Your task to perform on an android device: Open display settings Image 0: 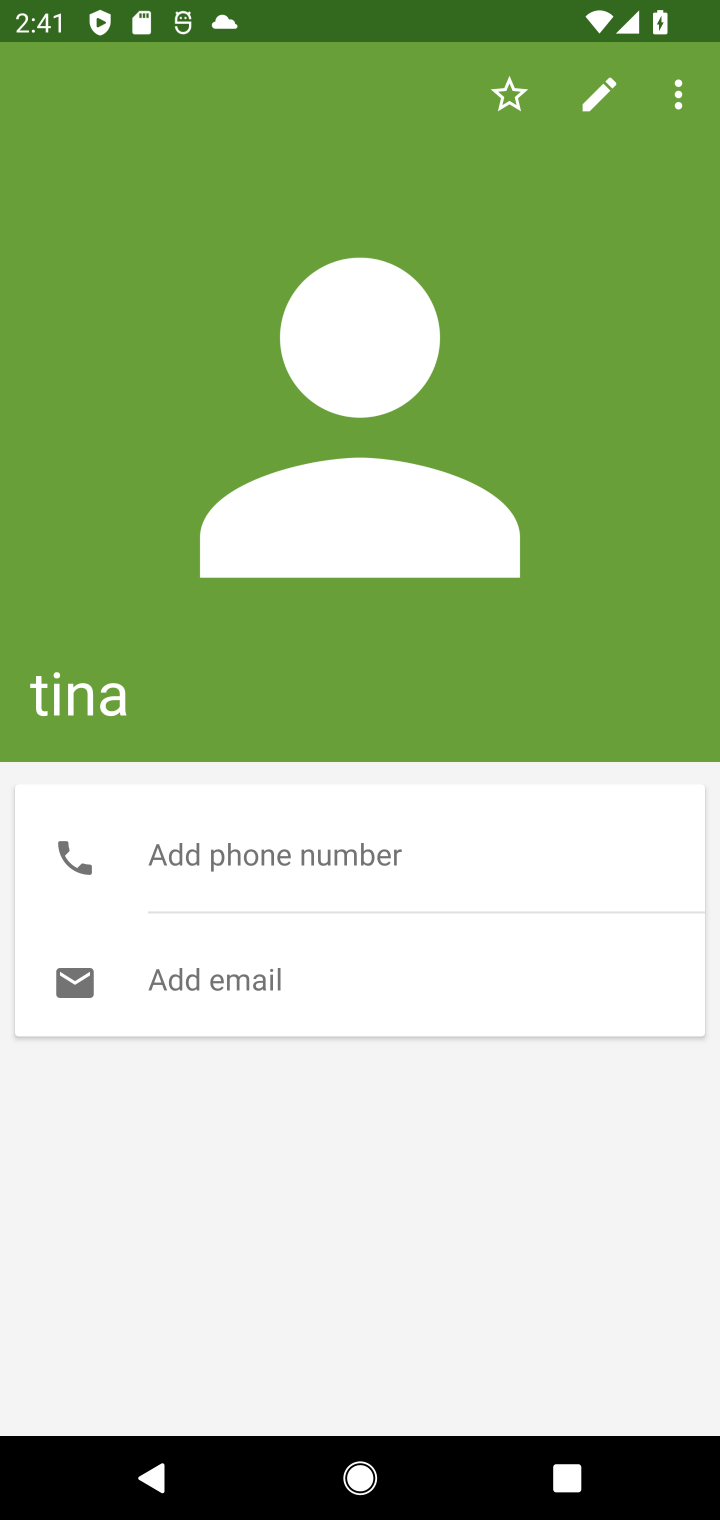
Step 0: press home button
Your task to perform on an android device: Open display settings Image 1: 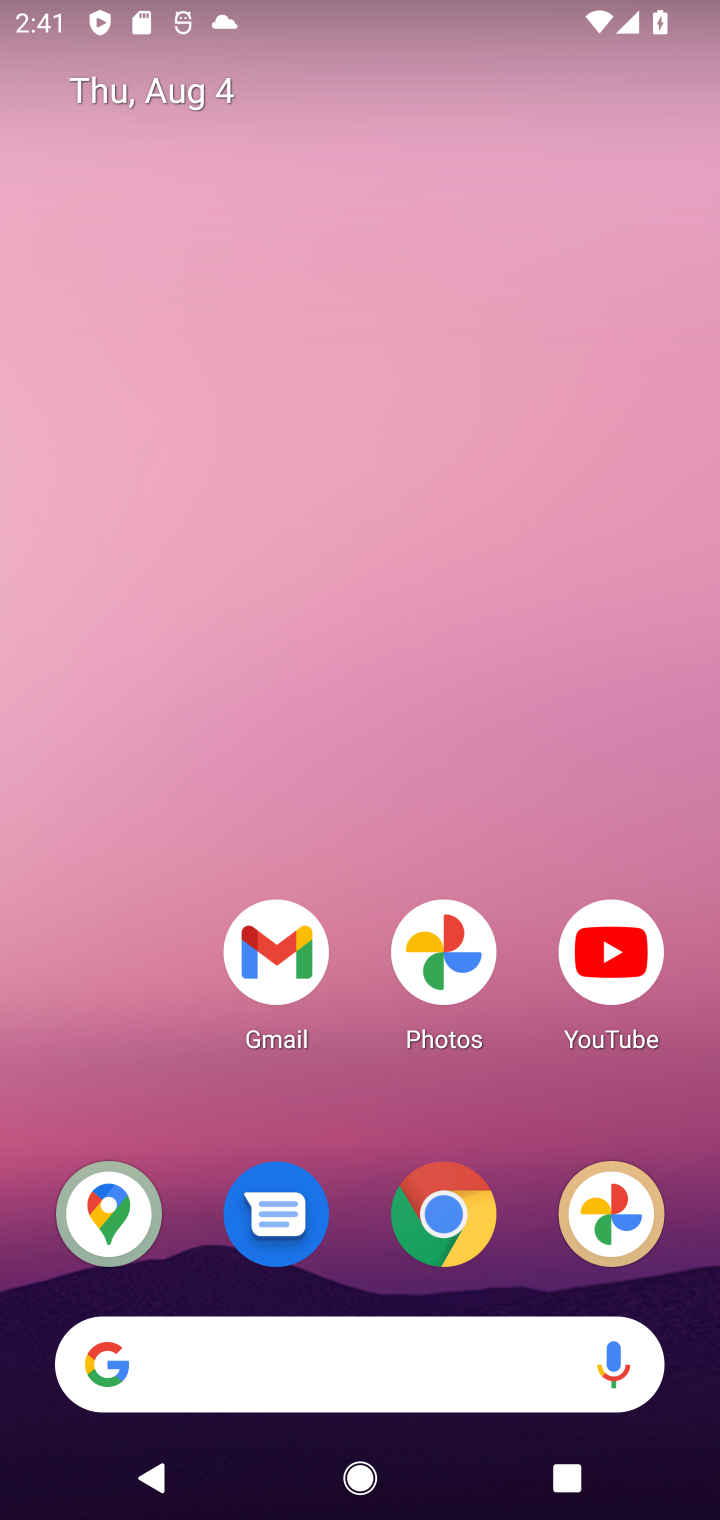
Step 1: drag from (117, 1065) to (66, 0)
Your task to perform on an android device: Open display settings Image 2: 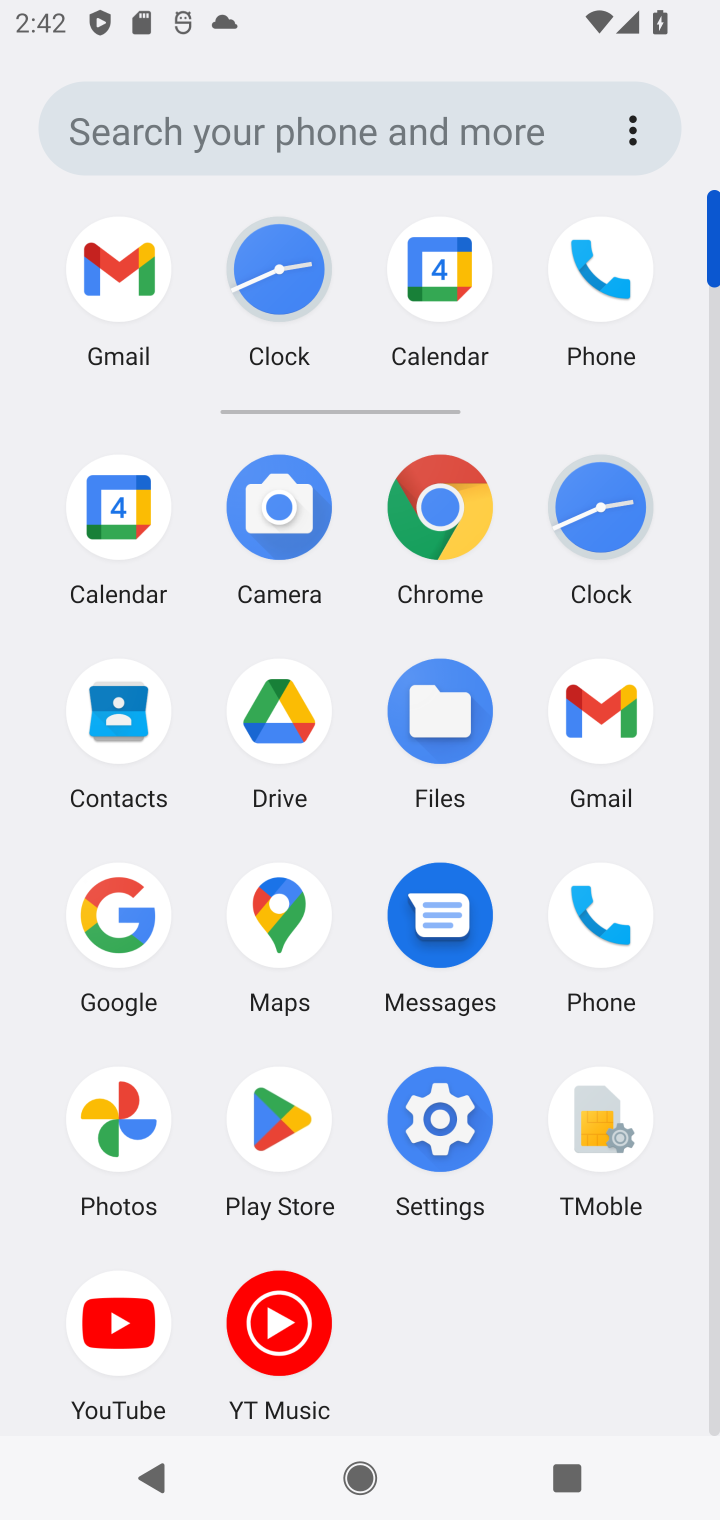
Step 2: click (417, 1122)
Your task to perform on an android device: Open display settings Image 3: 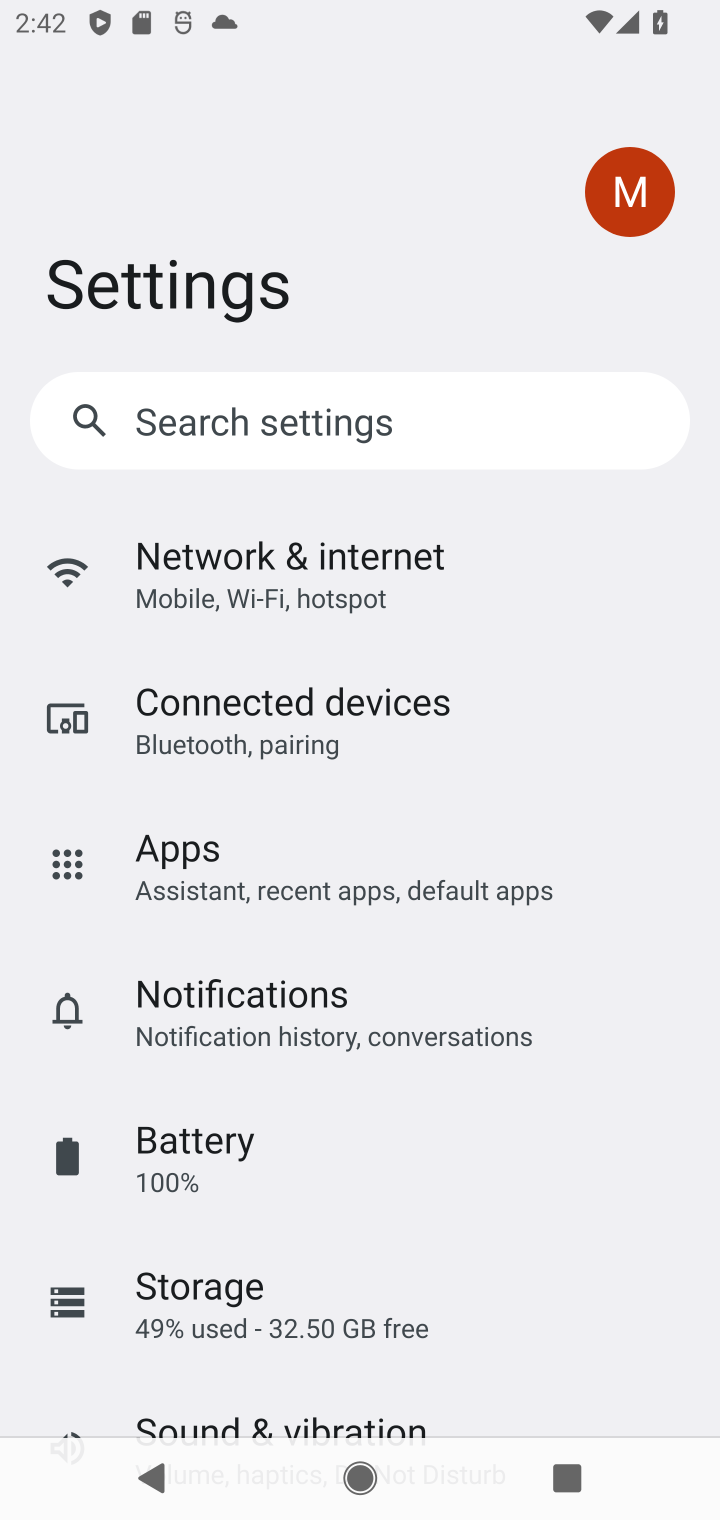
Step 3: drag from (256, 1183) to (112, 341)
Your task to perform on an android device: Open display settings Image 4: 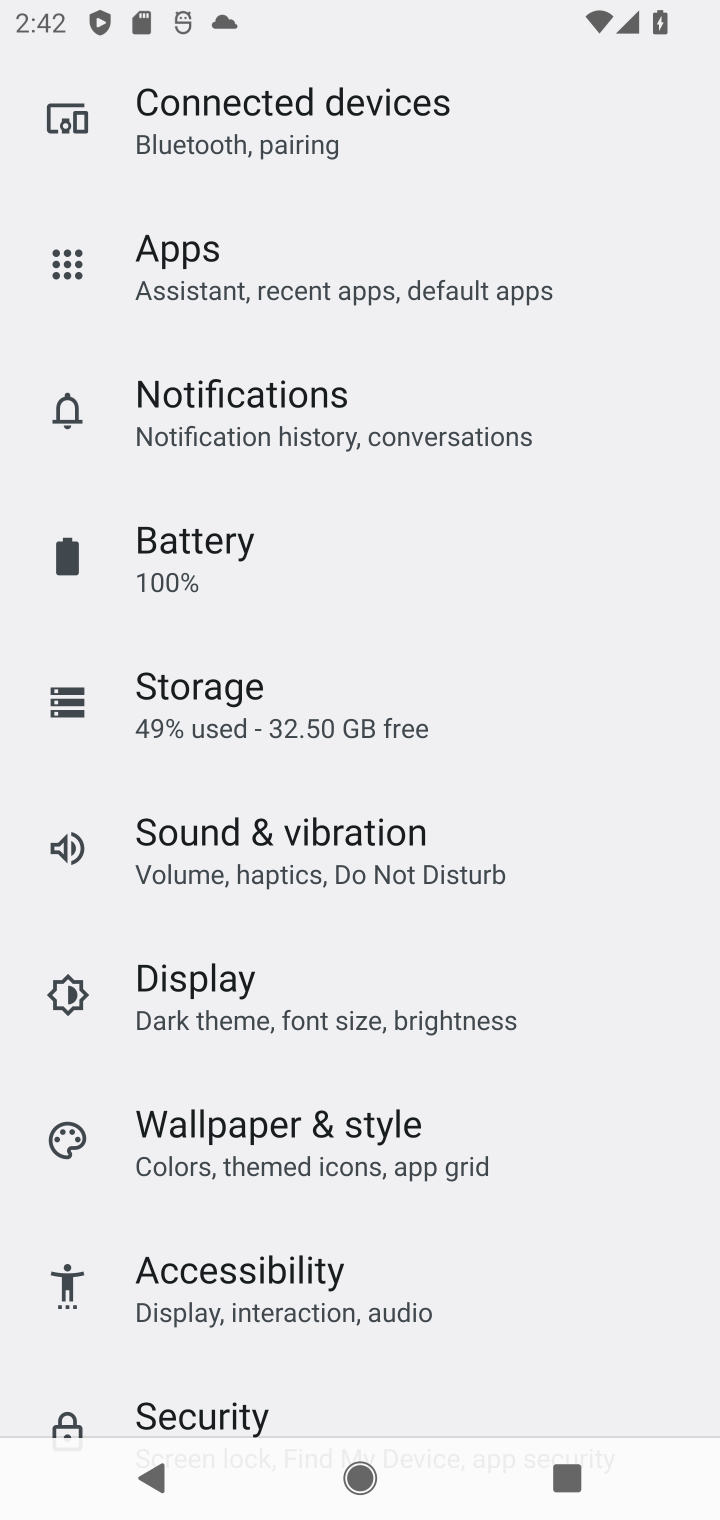
Step 4: drag from (256, 1201) to (185, 244)
Your task to perform on an android device: Open display settings Image 5: 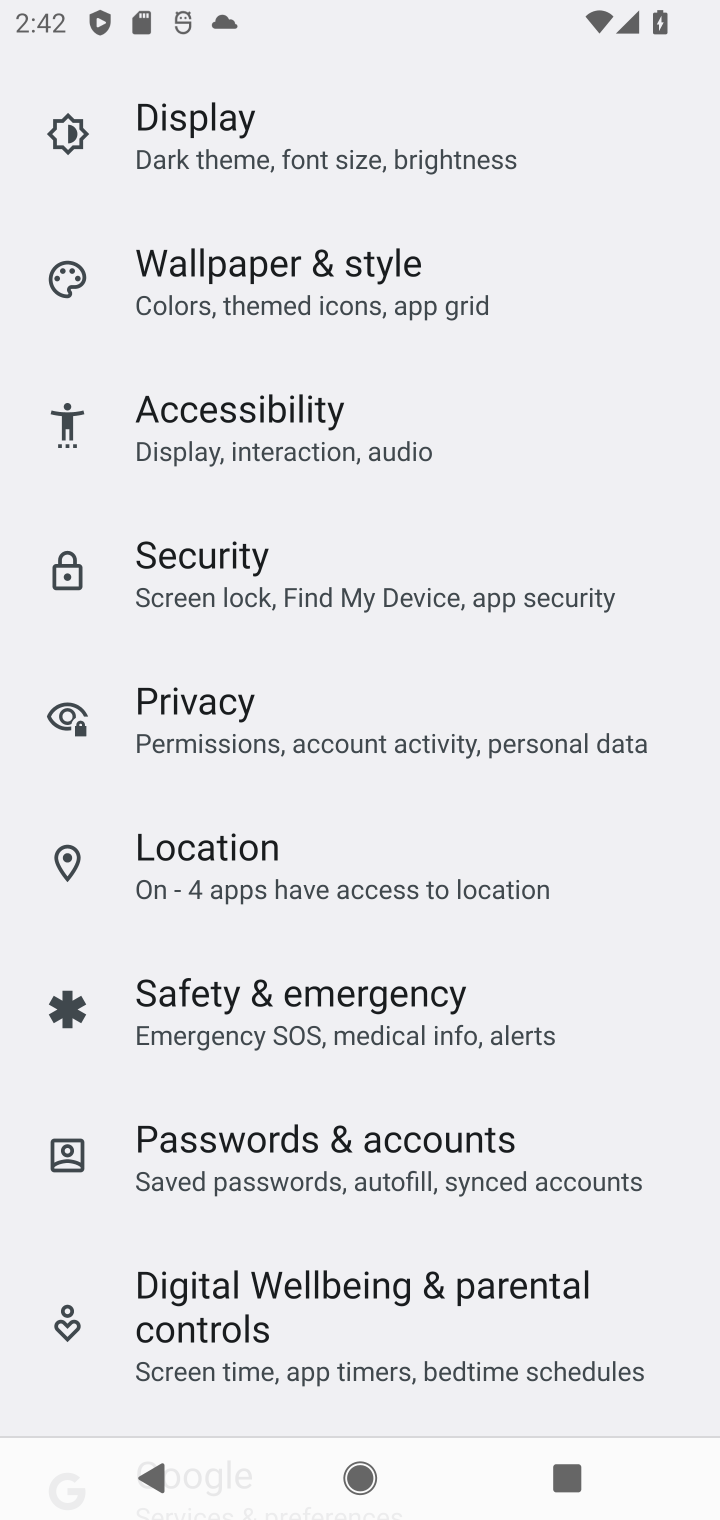
Step 5: click (168, 123)
Your task to perform on an android device: Open display settings Image 6: 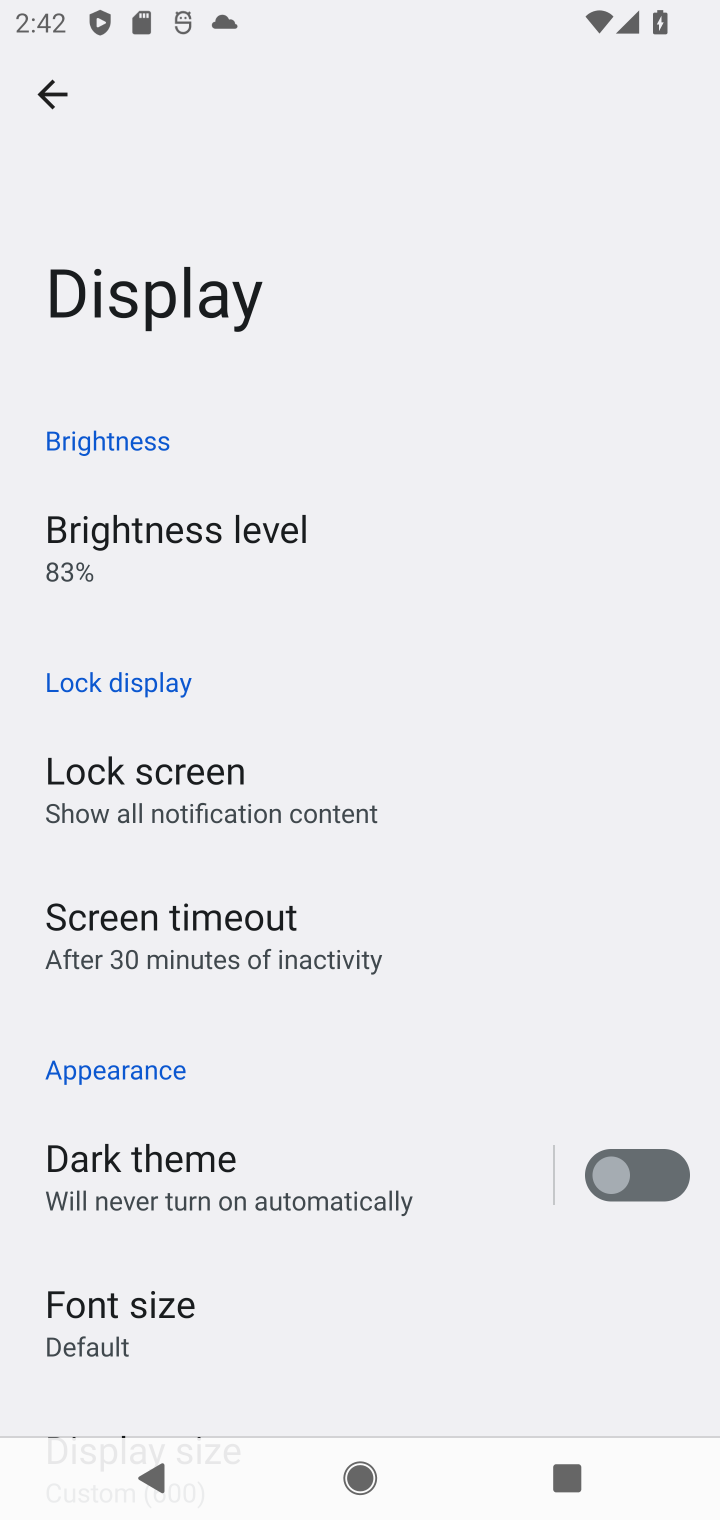
Step 6: task complete